Your task to perform on an android device: Search for seafood restaurants on Google Maps Image 0: 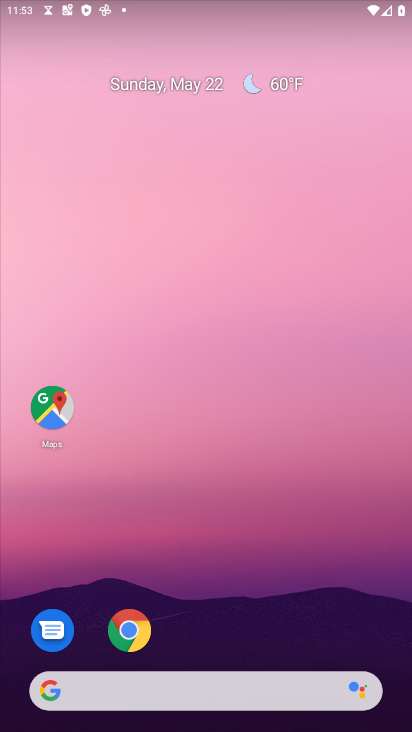
Step 0: click (50, 409)
Your task to perform on an android device: Search for seafood restaurants on Google Maps Image 1: 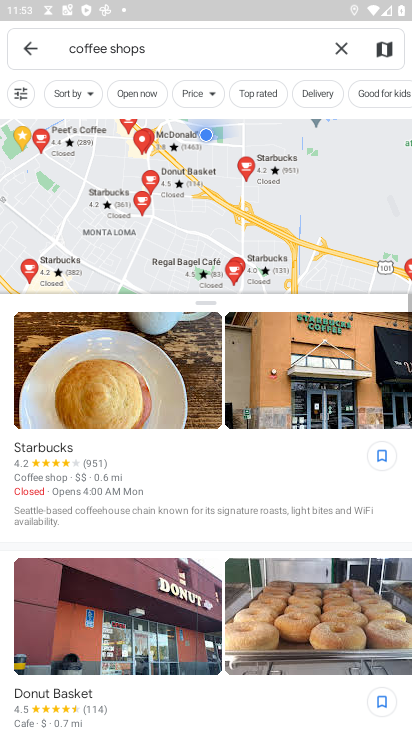
Step 1: click (338, 51)
Your task to perform on an android device: Search for seafood restaurants on Google Maps Image 2: 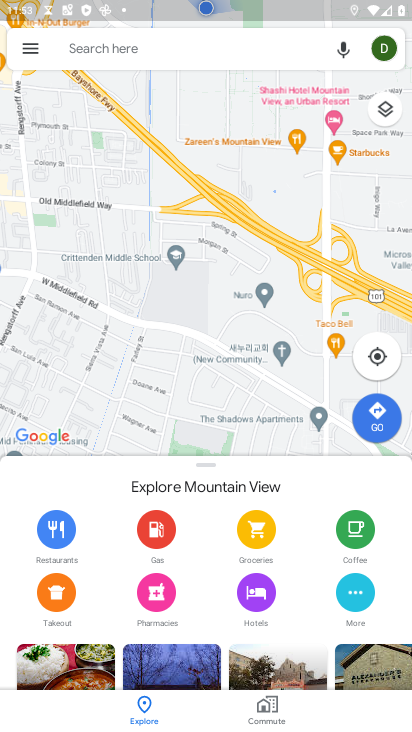
Step 2: click (153, 54)
Your task to perform on an android device: Search for seafood restaurants on Google Maps Image 3: 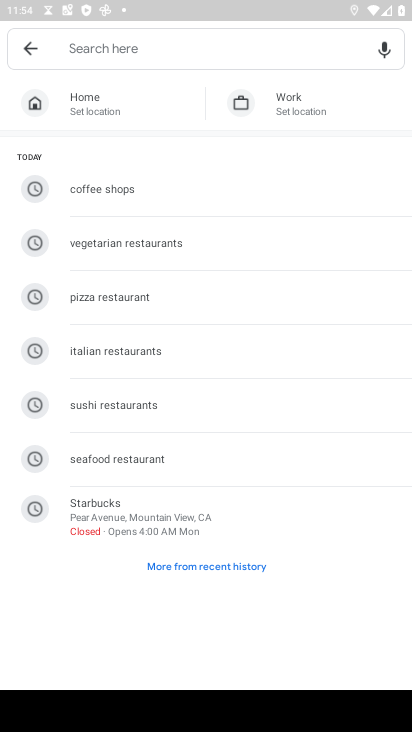
Step 3: type "seafood restaurants"
Your task to perform on an android device: Search for seafood restaurants on Google Maps Image 4: 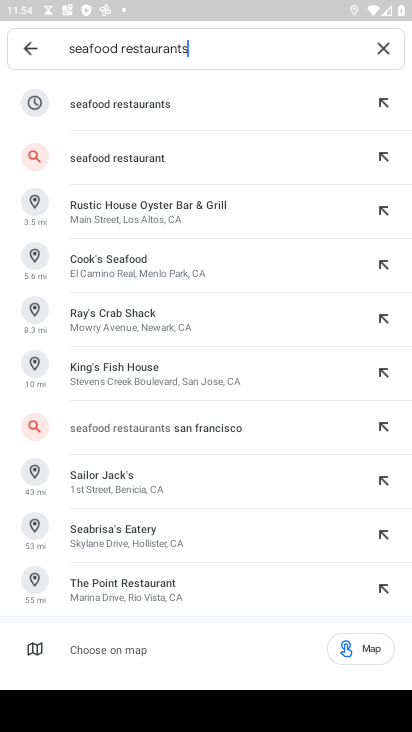
Step 4: click (112, 101)
Your task to perform on an android device: Search for seafood restaurants on Google Maps Image 5: 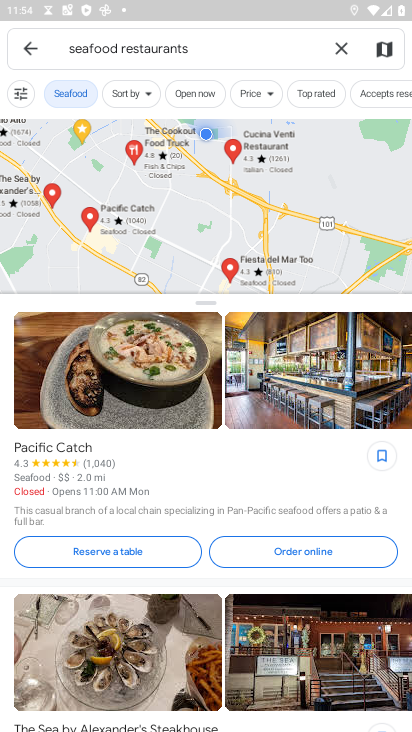
Step 5: task complete